Your task to perform on an android device: search for starred emails in the gmail app Image 0: 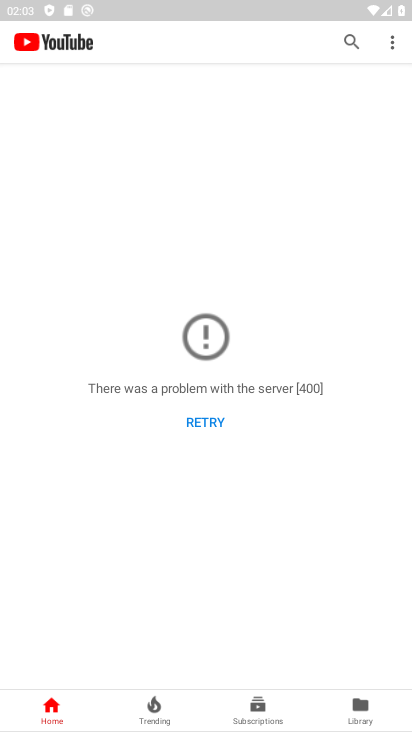
Step 0: press home button
Your task to perform on an android device: search for starred emails in the gmail app Image 1: 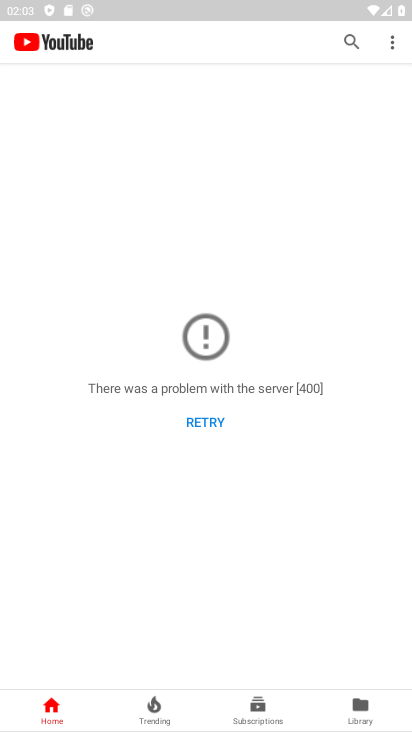
Step 1: press home button
Your task to perform on an android device: search for starred emails in the gmail app Image 2: 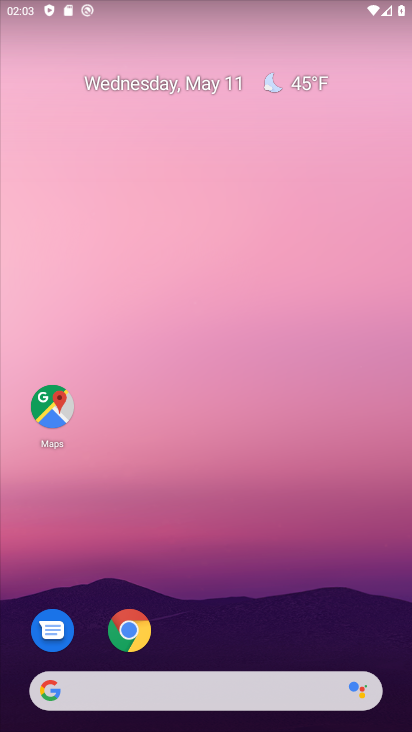
Step 2: drag from (193, 725) to (193, 187)
Your task to perform on an android device: search for starred emails in the gmail app Image 3: 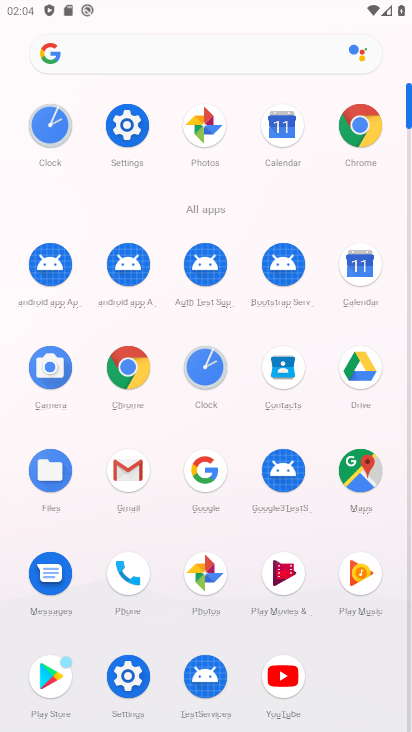
Step 3: click (133, 466)
Your task to perform on an android device: search for starred emails in the gmail app Image 4: 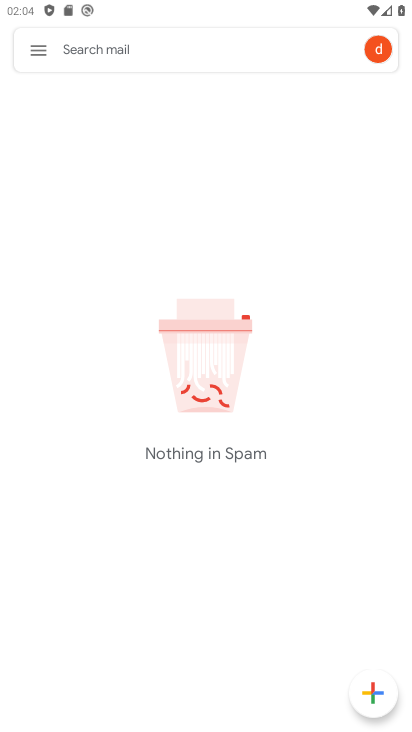
Step 4: click (35, 44)
Your task to perform on an android device: search for starred emails in the gmail app Image 5: 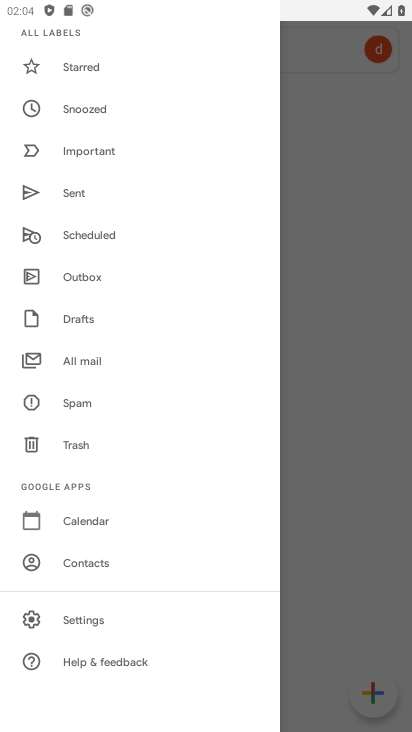
Step 5: click (71, 66)
Your task to perform on an android device: search for starred emails in the gmail app Image 6: 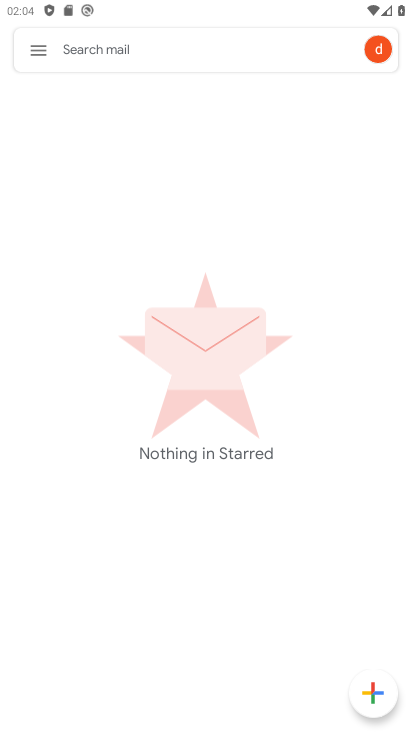
Step 6: task complete